Your task to perform on an android device: Show me the top rated dinnerware on Crate & Barrel Image 0: 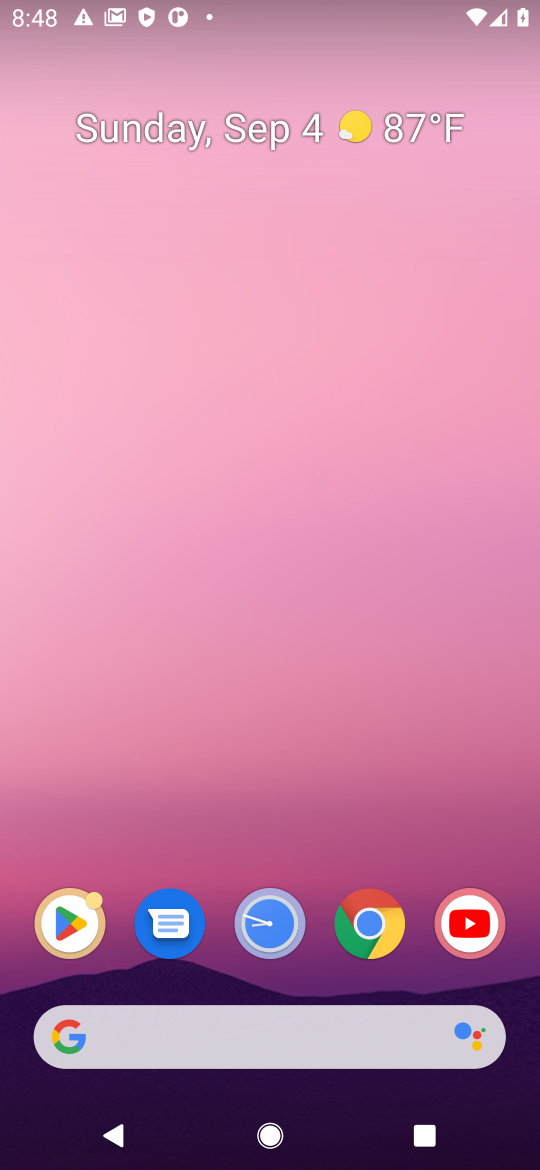
Step 0: press home button
Your task to perform on an android device: Show me the top rated dinnerware on Crate & Barrel Image 1: 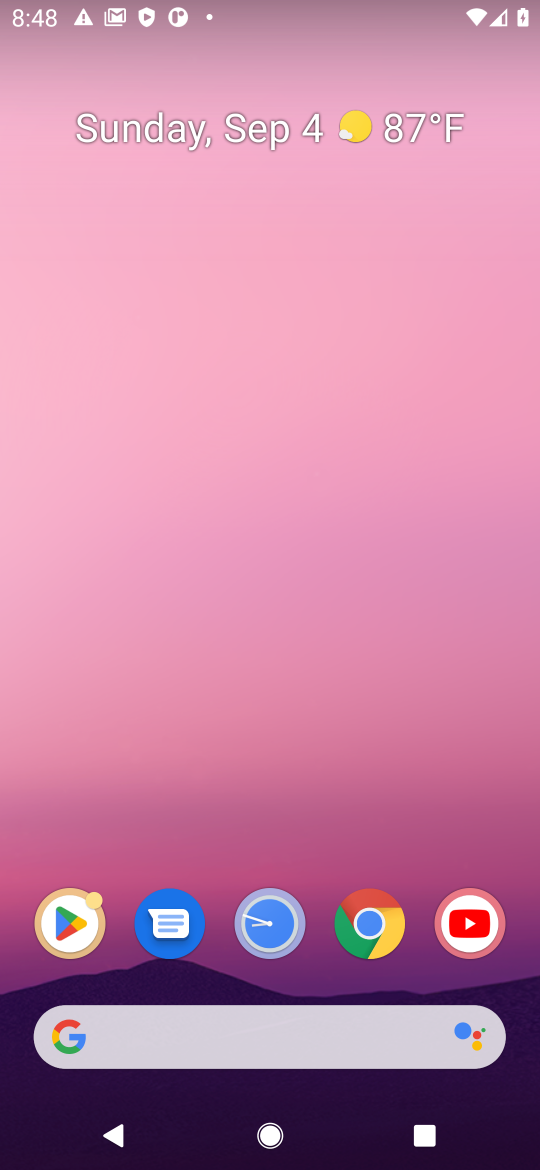
Step 1: click (355, 1045)
Your task to perform on an android device: Show me the top rated dinnerware on Crate & Barrel Image 2: 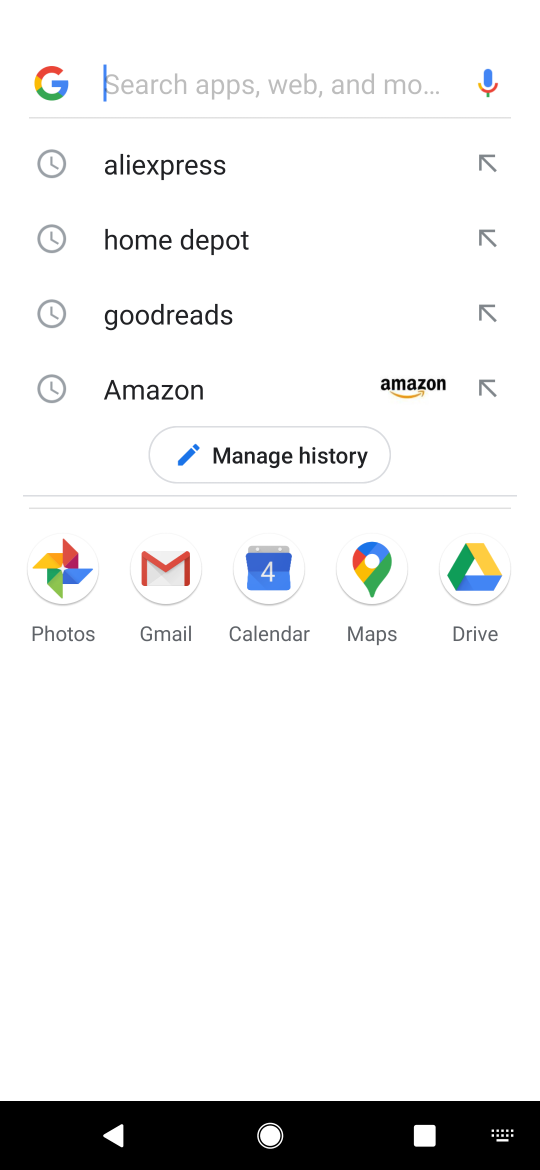
Step 2: press enter
Your task to perform on an android device: Show me the top rated dinnerware on Crate & Barrel Image 3: 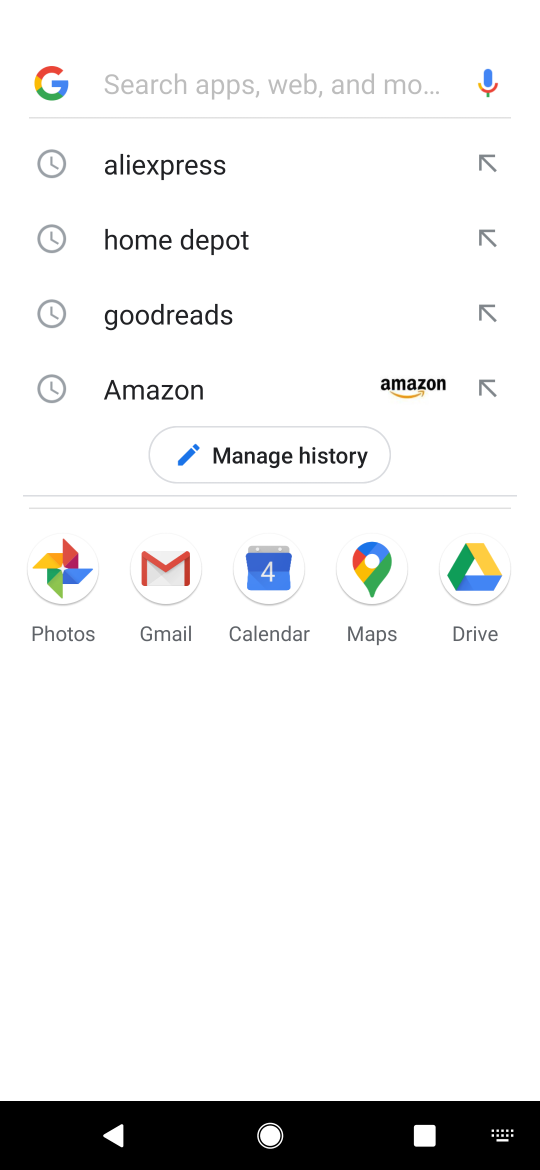
Step 3: type "crate barrel"
Your task to perform on an android device: Show me the top rated dinnerware on Crate & Barrel Image 4: 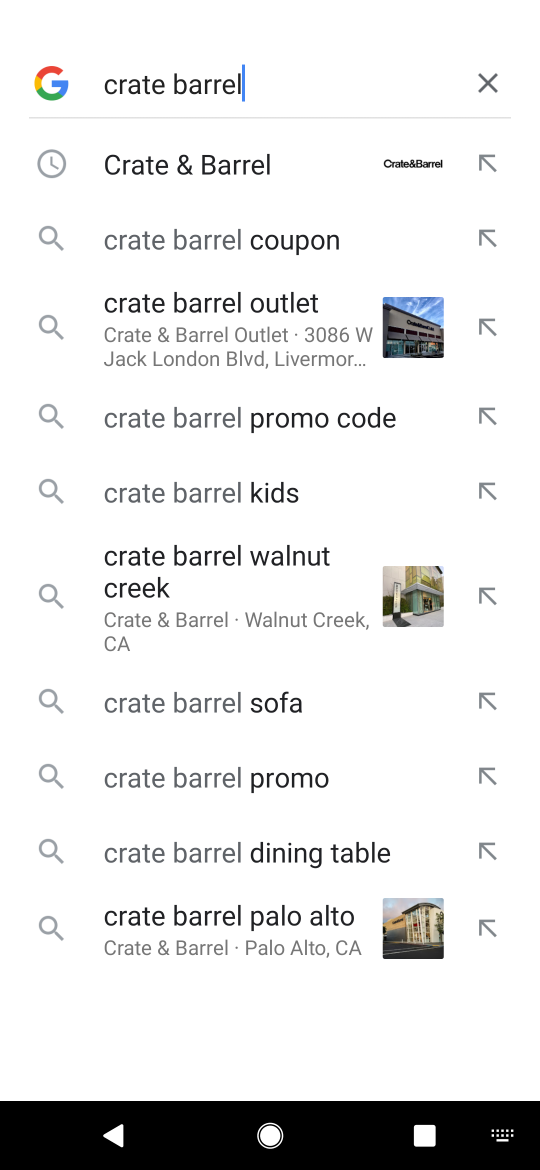
Step 4: click (209, 162)
Your task to perform on an android device: Show me the top rated dinnerware on Crate & Barrel Image 5: 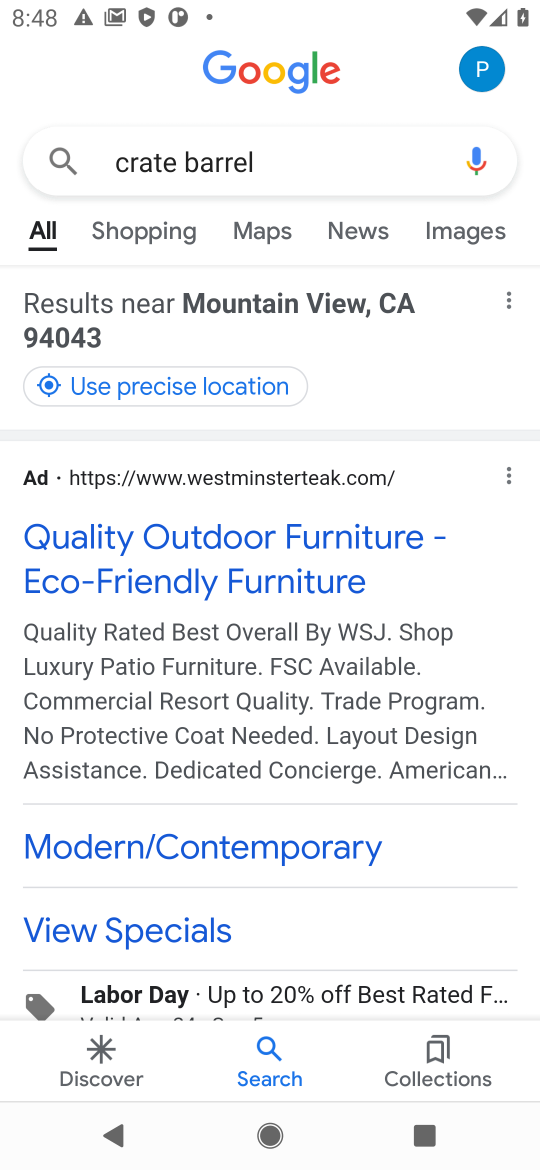
Step 5: drag from (450, 813) to (478, 258)
Your task to perform on an android device: Show me the top rated dinnerware on Crate & Barrel Image 6: 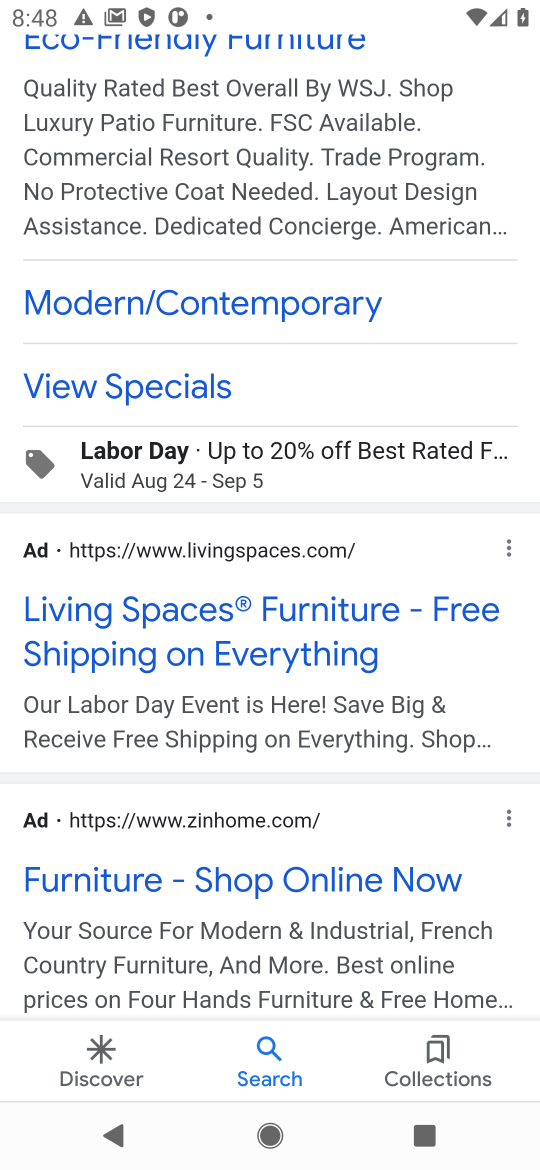
Step 6: drag from (407, 649) to (414, 260)
Your task to perform on an android device: Show me the top rated dinnerware on Crate & Barrel Image 7: 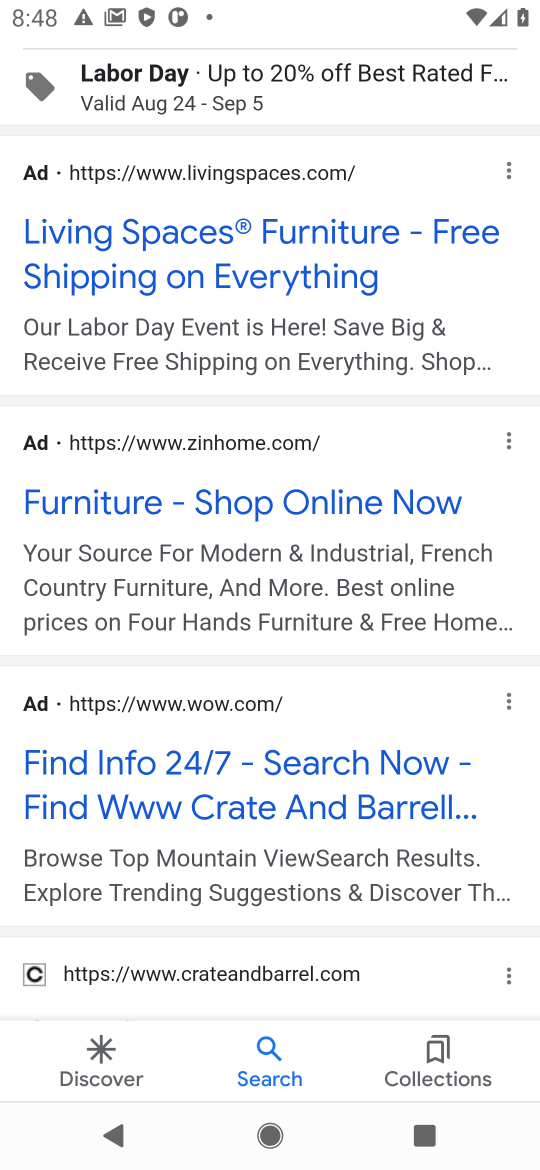
Step 7: drag from (383, 908) to (429, 202)
Your task to perform on an android device: Show me the top rated dinnerware on Crate & Barrel Image 8: 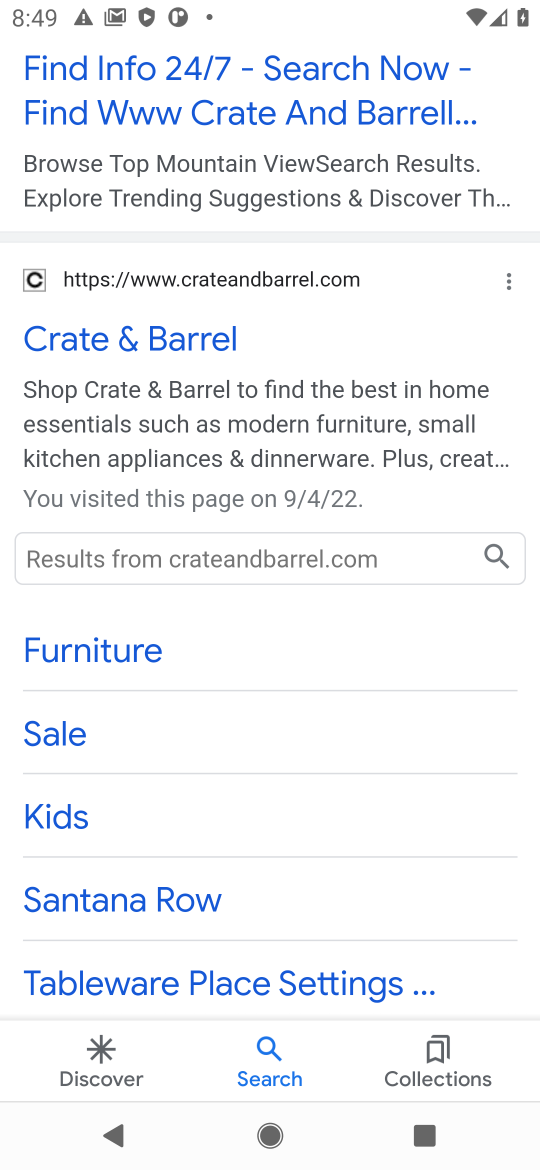
Step 8: drag from (371, 910) to (381, 275)
Your task to perform on an android device: Show me the top rated dinnerware on Crate & Barrel Image 9: 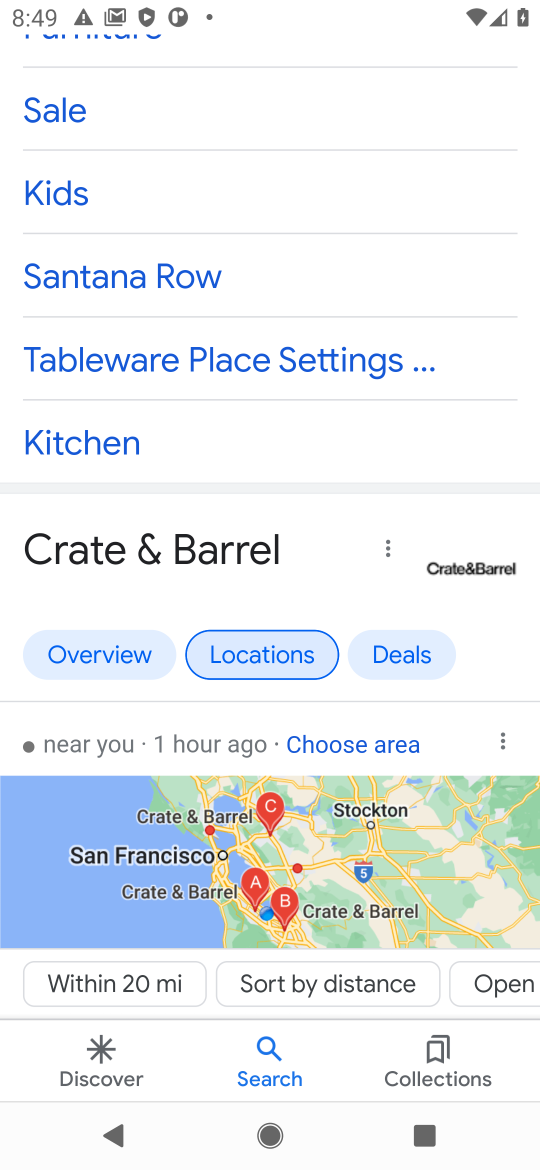
Step 9: drag from (348, 715) to (350, 212)
Your task to perform on an android device: Show me the top rated dinnerware on Crate & Barrel Image 10: 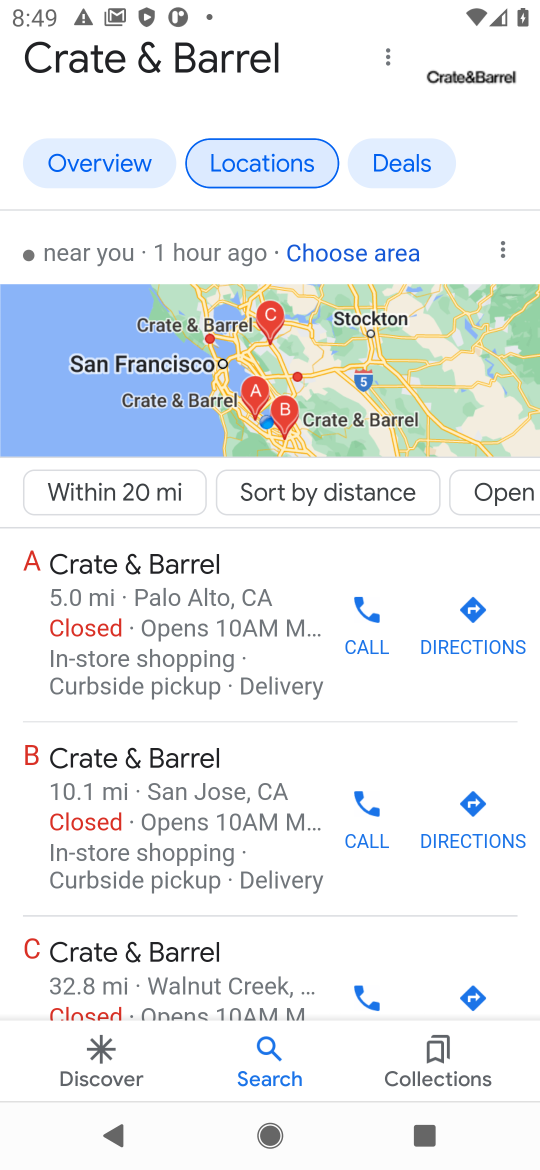
Step 10: drag from (321, 790) to (319, 251)
Your task to perform on an android device: Show me the top rated dinnerware on Crate & Barrel Image 11: 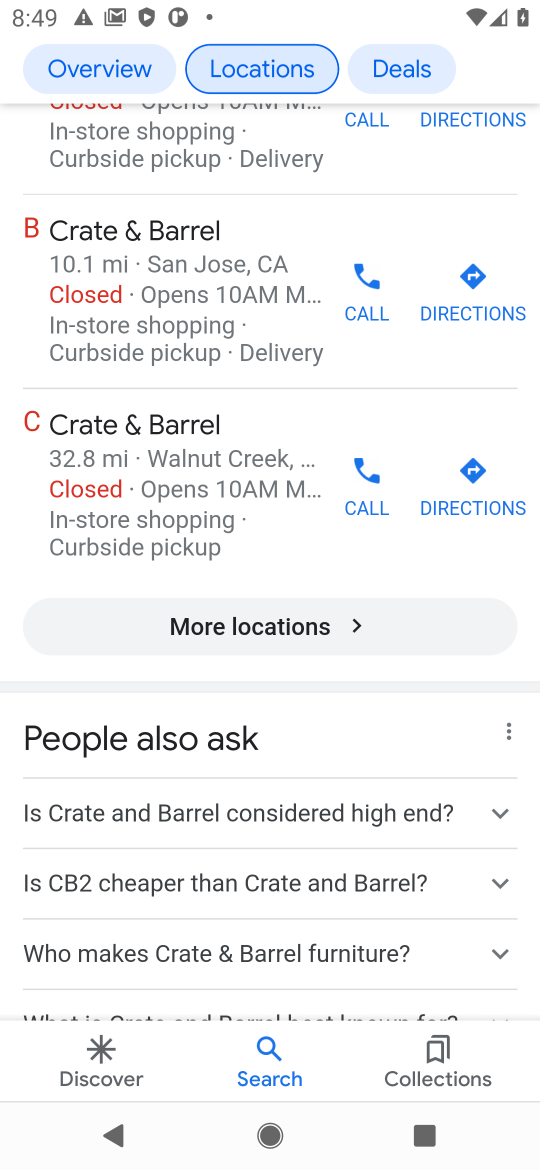
Step 11: drag from (296, 559) to (296, 135)
Your task to perform on an android device: Show me the top rated dinnerware on Crate & Barrel Image 12: 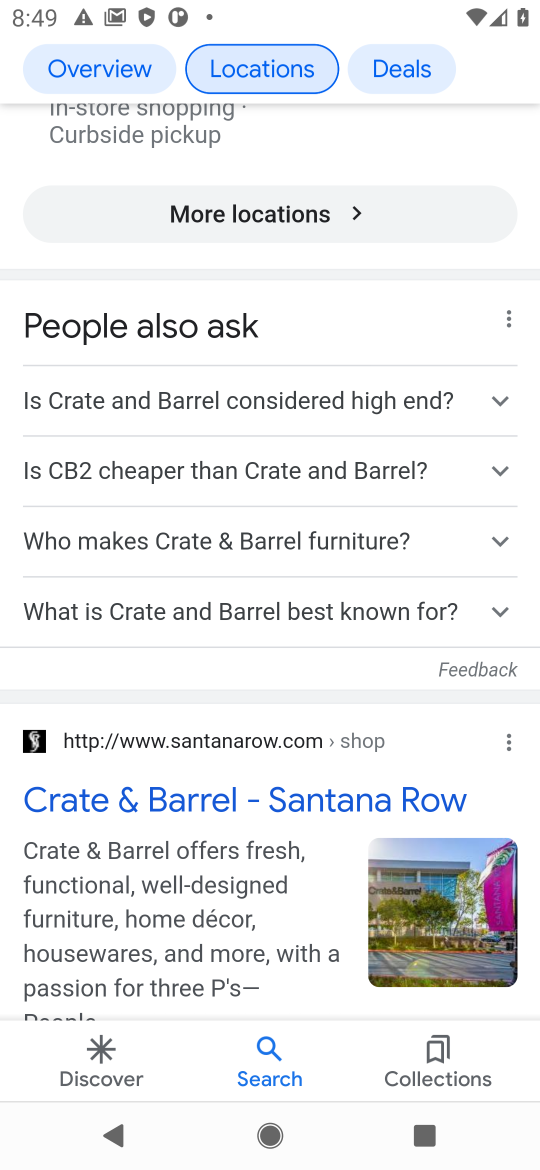
Step 12: drag from (298, 279) to (298, 994)
Your task to perform on an android device: Show me the top rated dinnerware on Crate & Barrel Image 13: 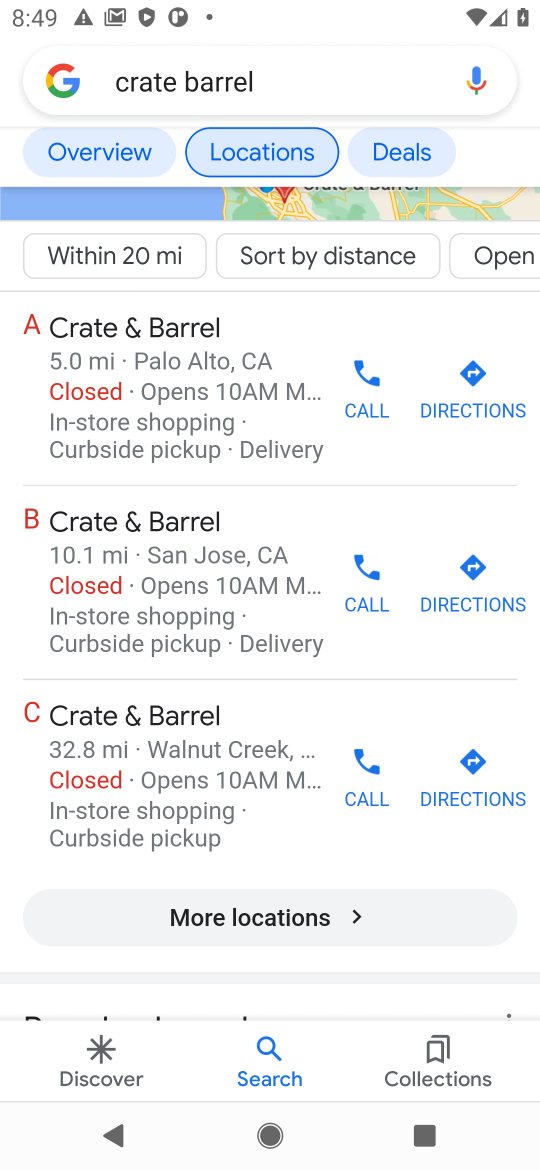
Step 13: drag from (244, 195) to (247, 791)
Your task to perform on an android device: Show me the top rated dinnerware on Crate & Barrel Image 14: 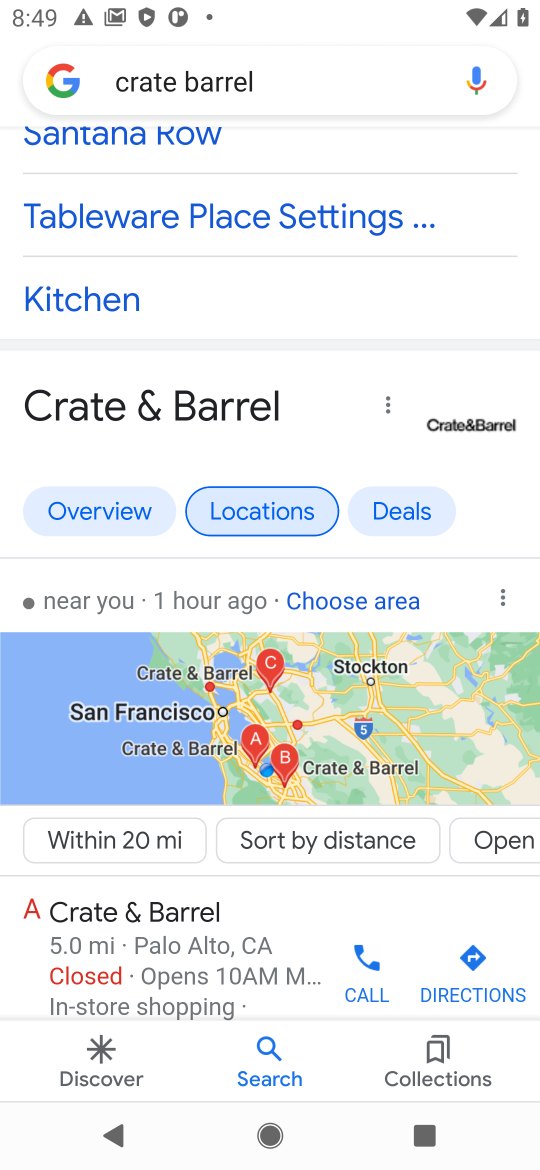
Step 14: click (359, 66)
Your task to perform on an android device: Show me the top rated dinnerware on Crate & Barrel Image 15: 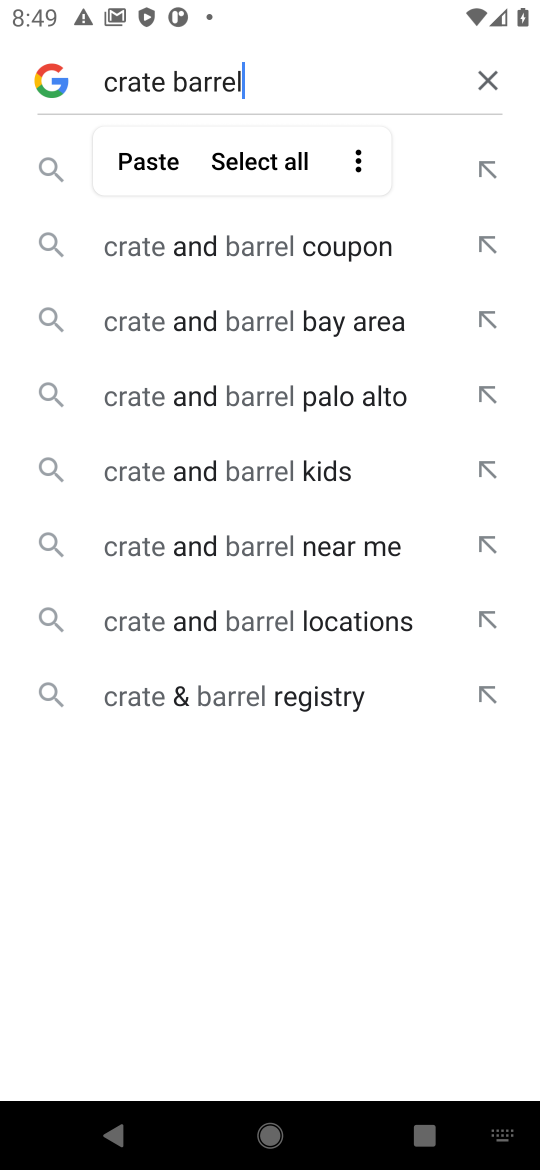
Step 15: task complete